Your task to perform on an android device: Do I have any events today? Image 0: 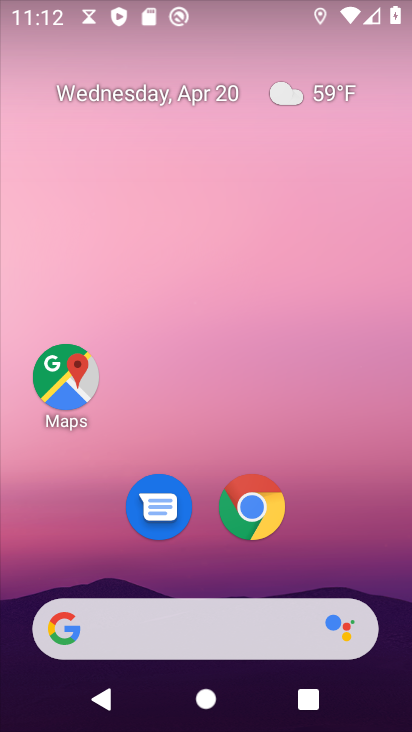
Step 0: drag from (265, 621) to (247, 160)
Your task to perform on an android device: Do I have any events today? Image 1: 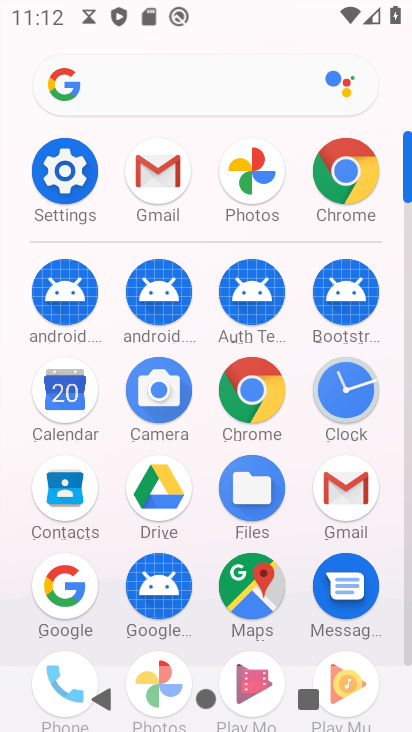
Step 1: click (69, 401)
Your task to perform on an android device: Do I have any events today? Image 2: 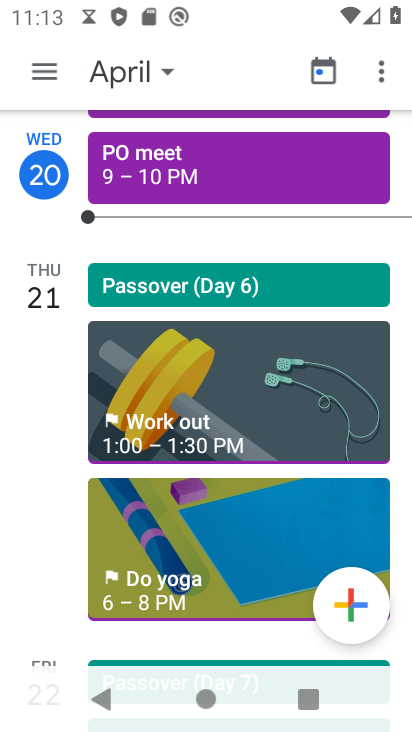
Step 2: click (55, 83)
Your task to perform on an android device: Do I have any events today? Image 3: 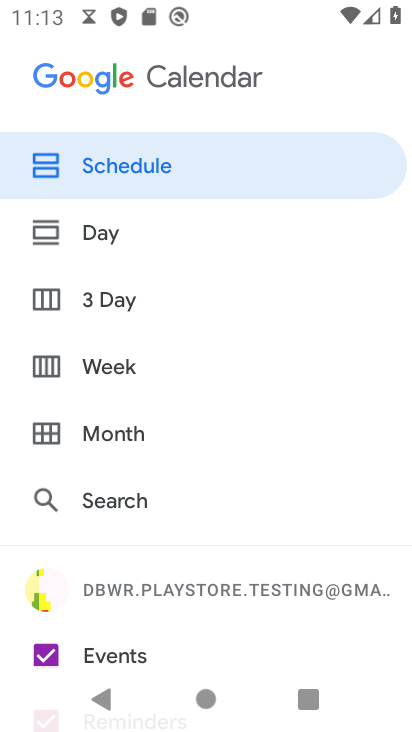
Step 3: click (140, 184)
Your task to perform on an android device: Do I have any events today? Image 4: 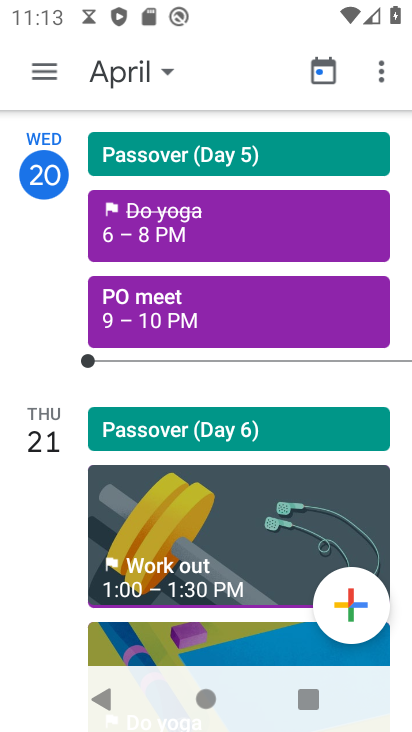
Step 4: task complete